Your task to perform on an android device: turn off notifications in google photos Image 0: 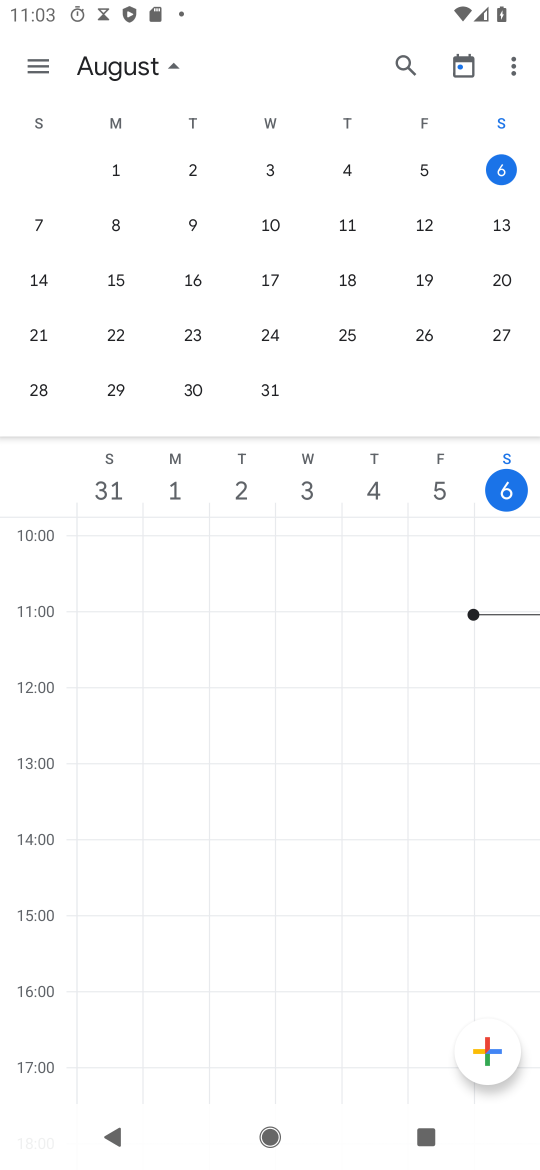
Step 0: press back button
Your task to perform on an android device: turn off notifications in google photos Image 1: 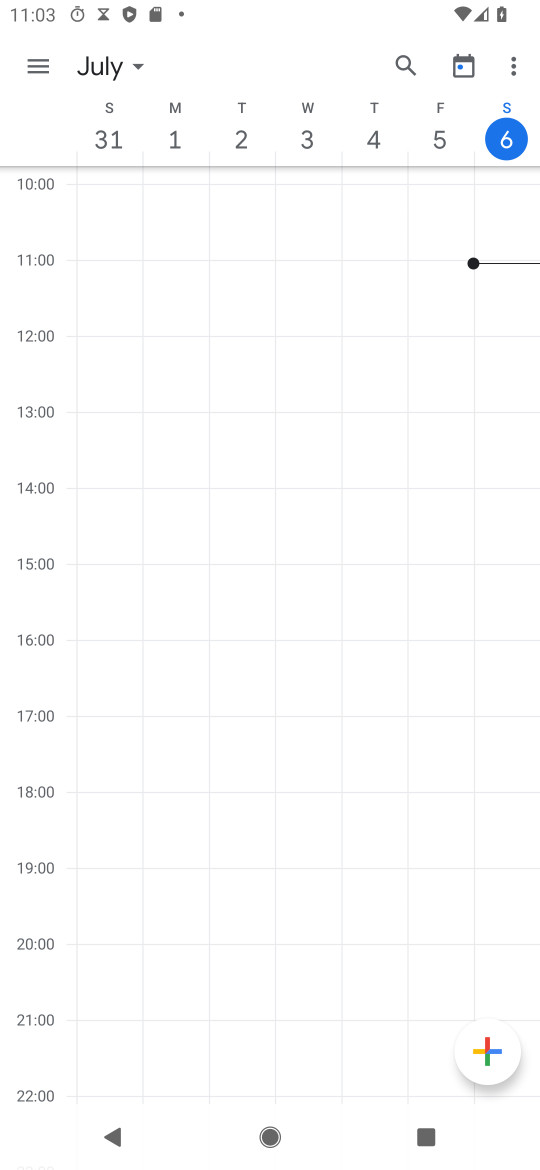
Step 1: press home button
Your task to perform on an android device: turn off notifications in google photos Image 2: 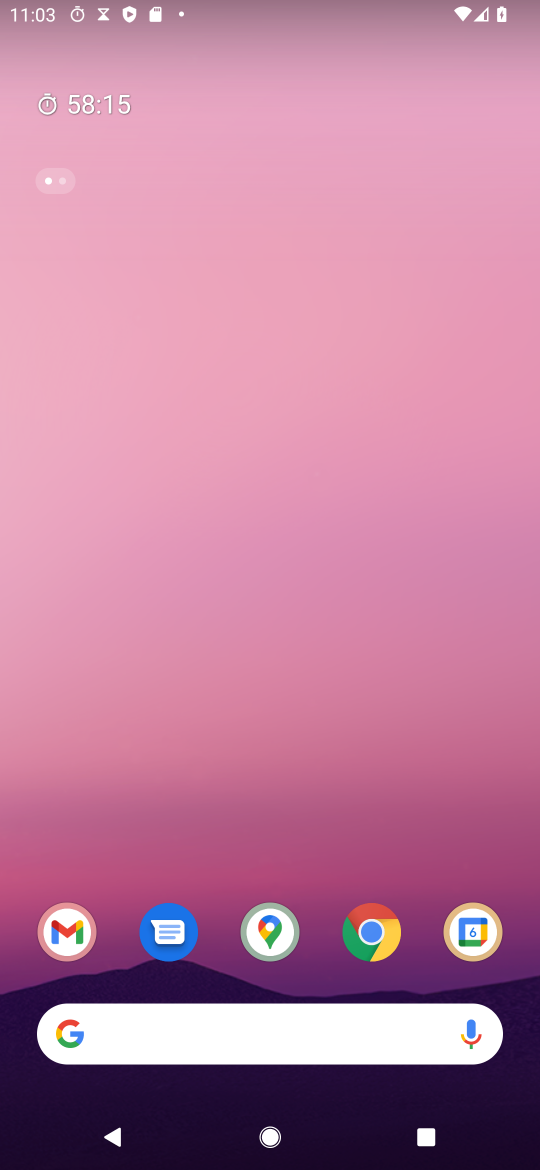
Step 2: press home button
Your task to perform on an android device: turn off notifications in google photos Image 3: 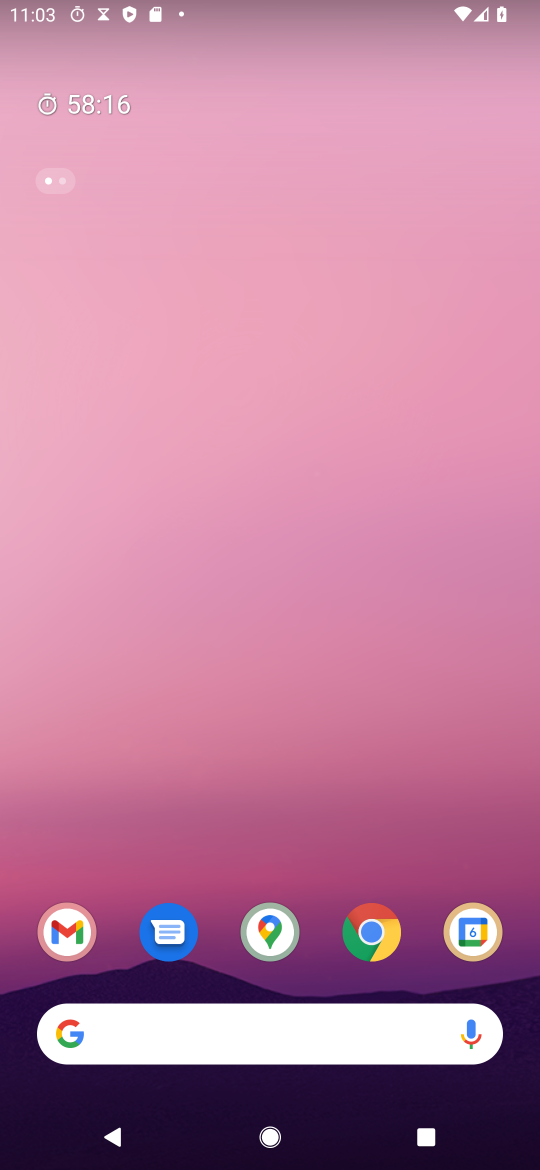
Step 3: drag from (338, 828) to (263, 131)
Your task to perform on an android device: turn off notifications in google photos Image 4: 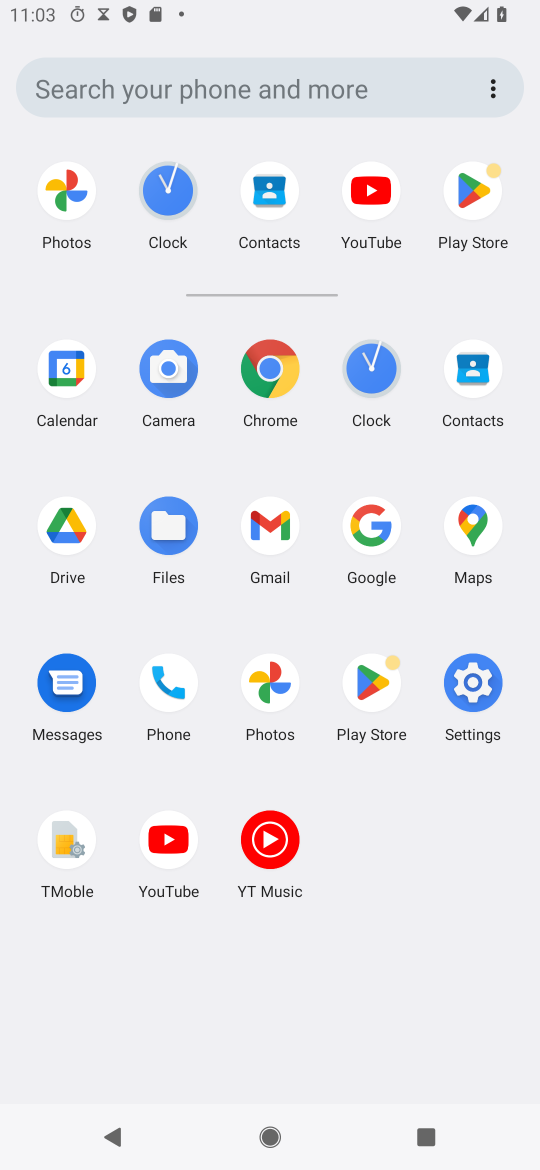
Step 4: click (56, 195)
Your task to perform on an android device: turn off notifications in google photos Image 5: 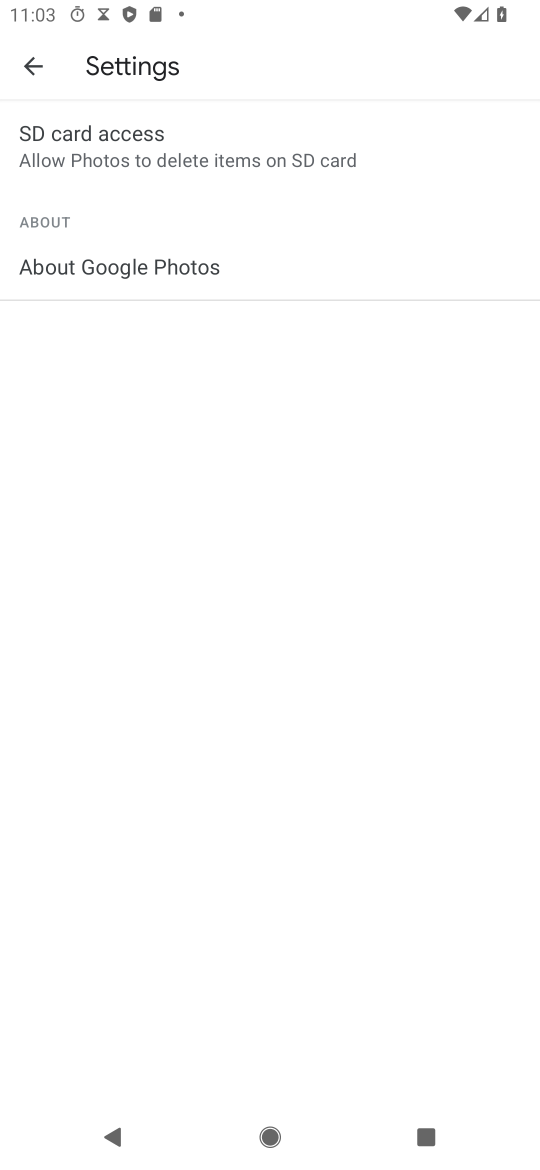
Step 5: click (31, 71)
Your task to perform on an android device: turn off notifications in google photos Image 6: 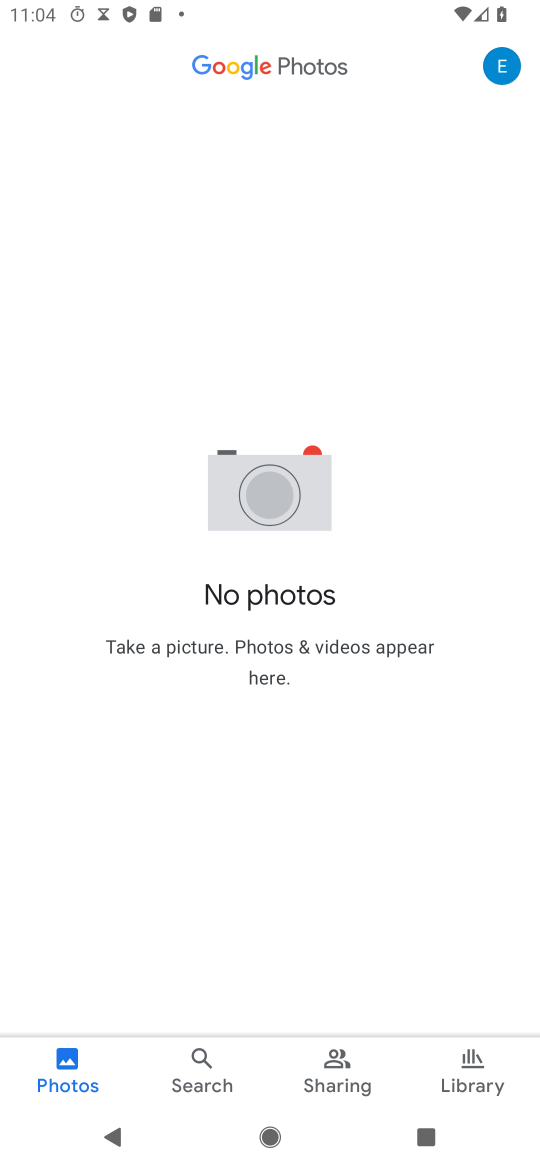
Step 6: click (496, 70)
Your task to perform on an android device: turn off notifications in google photos Image 7: 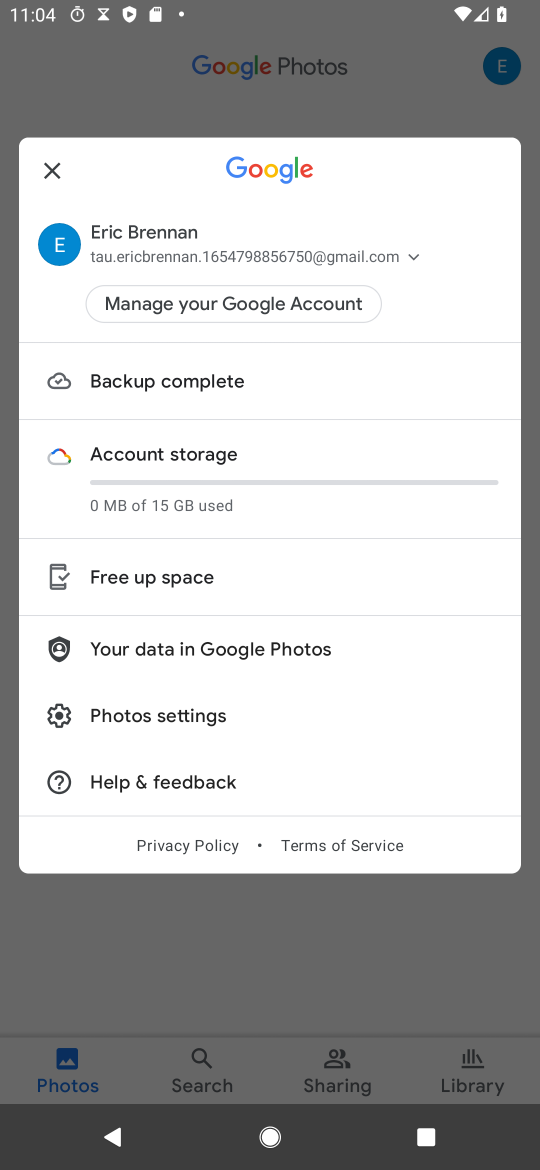
Step 7: click (206, 719)
Your task to perform on an android device: turn off notifications in google photos Image 8: 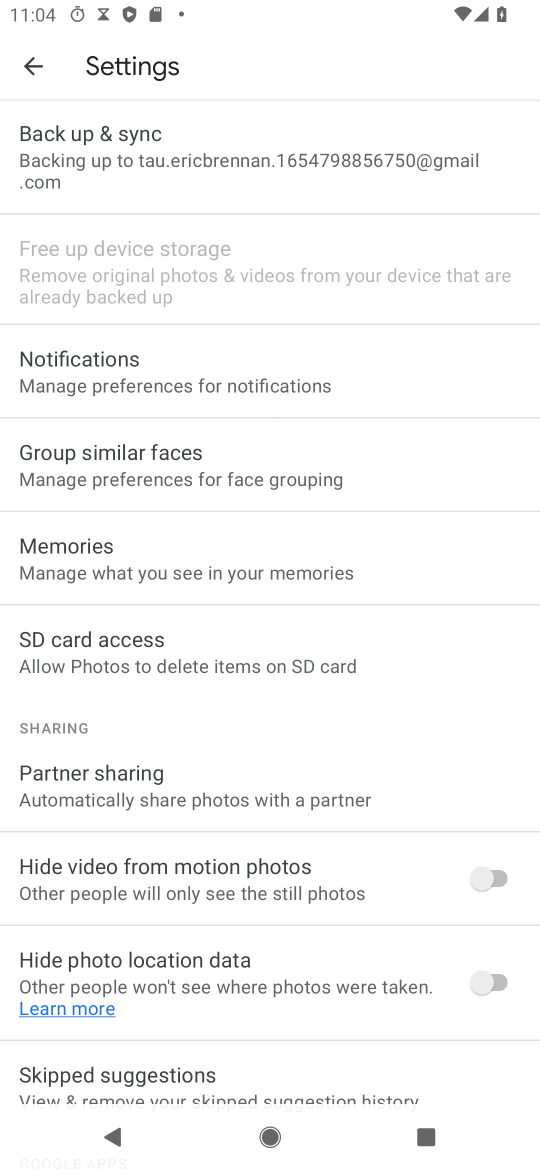
Step 8: click (257, 384)
Your task to perform on an android device: turn off notifications in google photos Image 9: 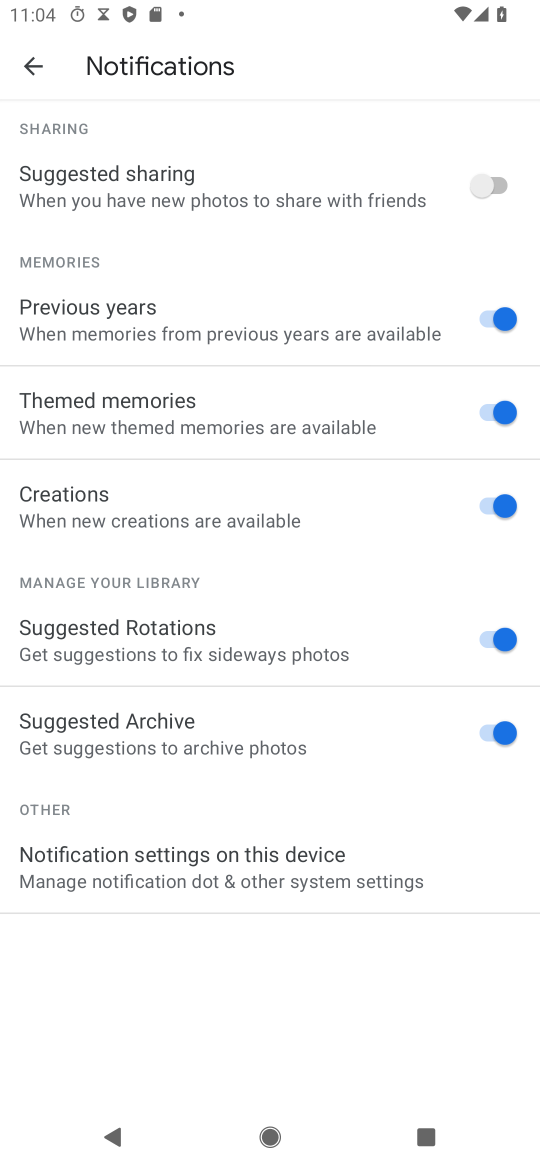
Step 9: click (301, 884)
Your task to perform on an android device: turn off notifications in google photos Image 10: 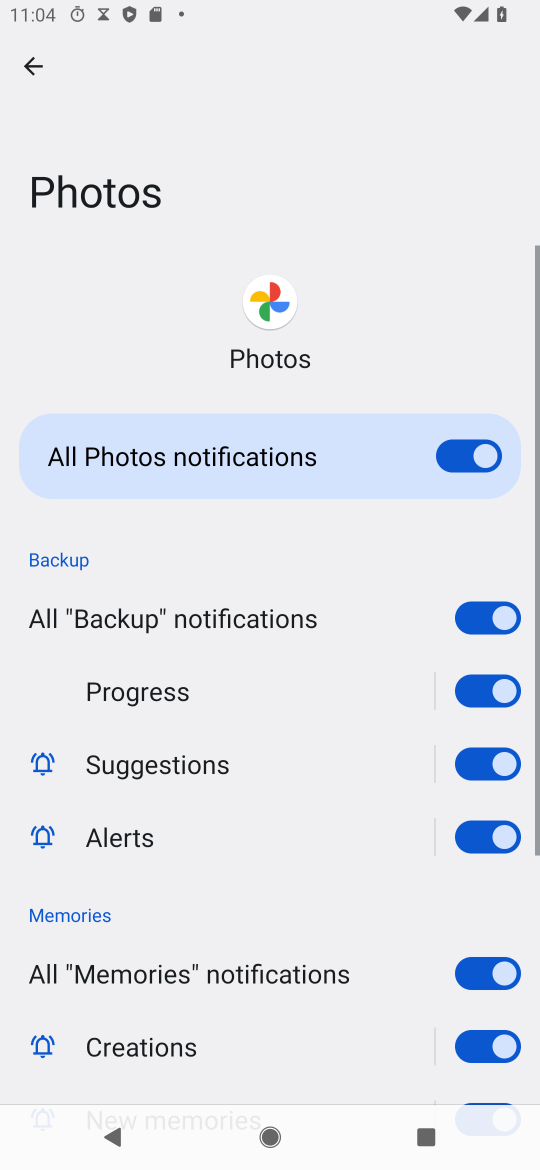
Step 10: click (469, 470)
Your task to perform on an android device: turn off notifications in google photos Image 11: 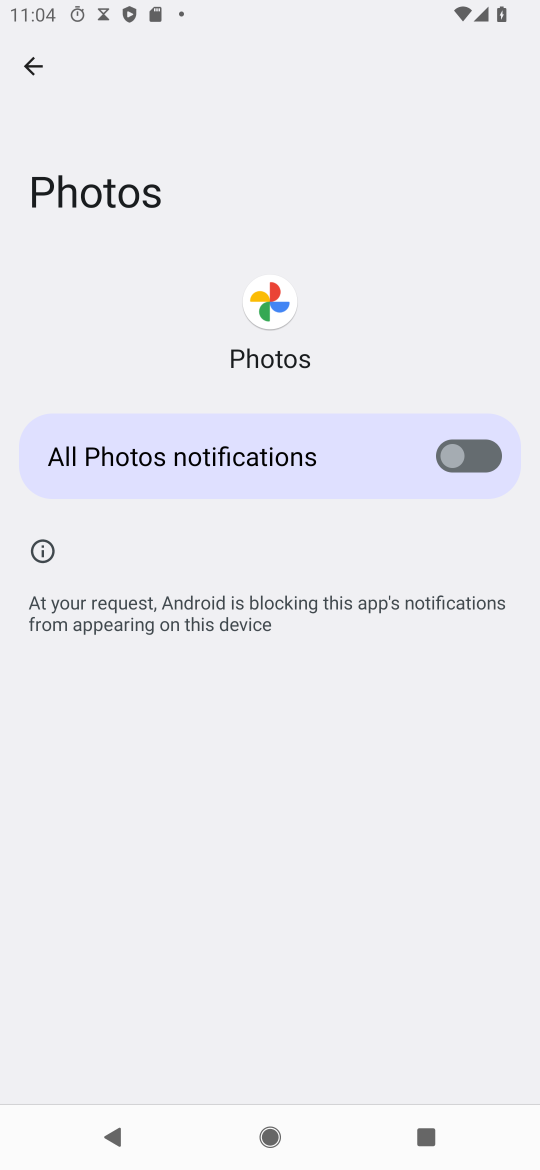
Step 11: task complete